Your task to perform on an android device: change the clock display to analog Image 0: 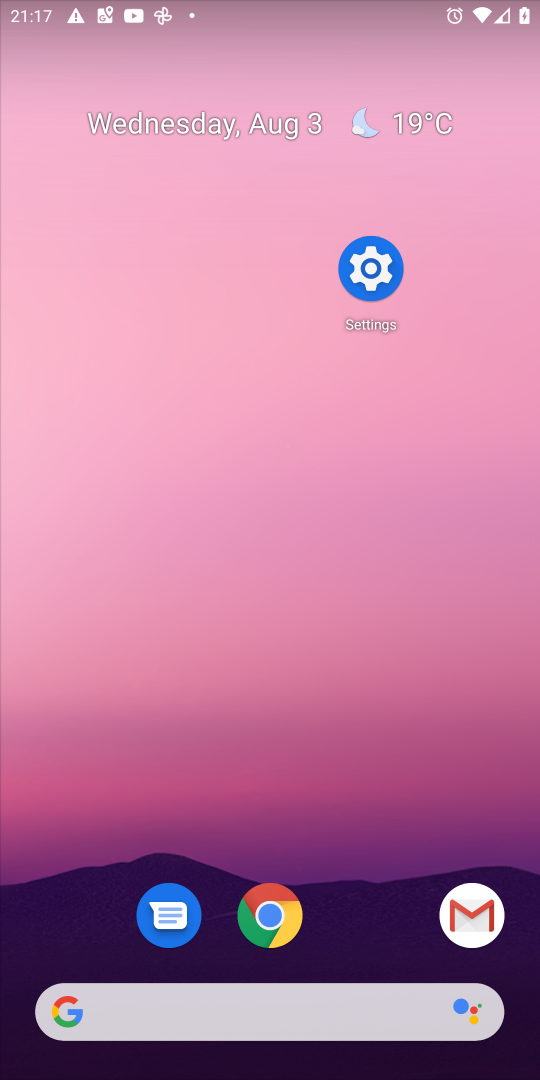
Step 0: press home button
Your task to perform on an android device: change the clock display to analog Image 1: 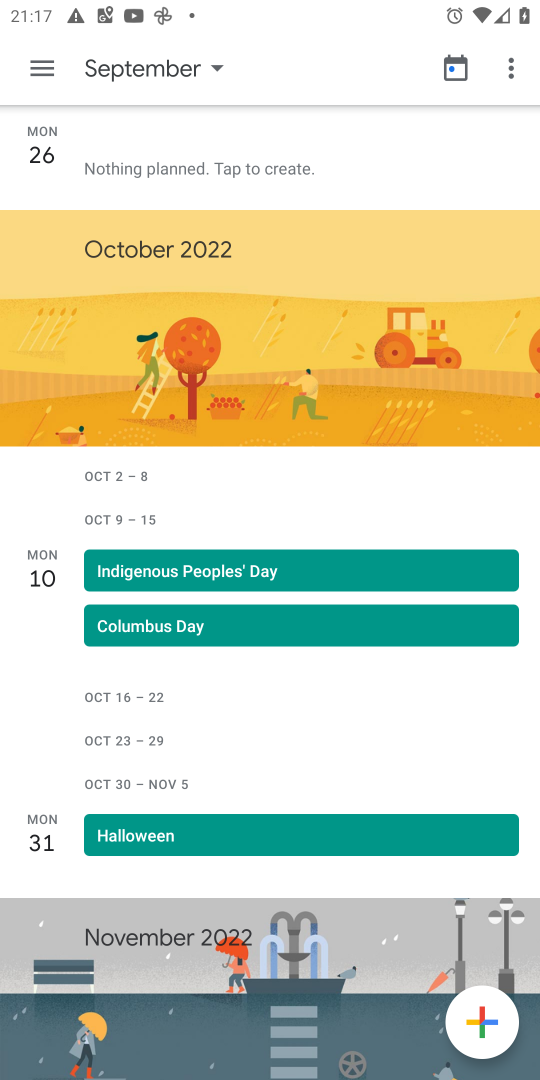
Step 1: drag from (409, 965) to (234, 245)
Your task to perform on an android device: change the clock display to analog Image 2: 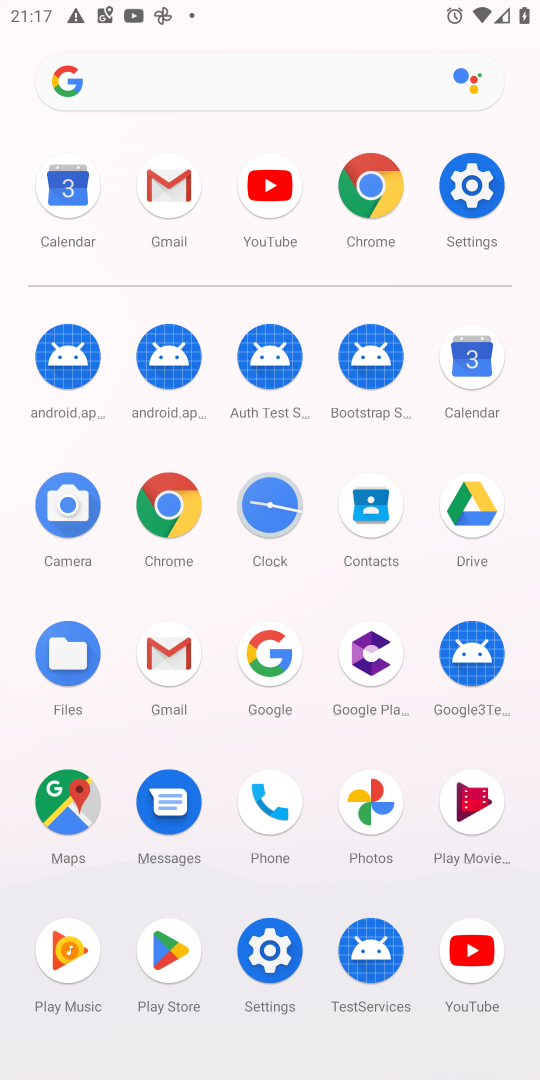
Step 2: click (163, 193)
Your task to perform on an android device: change the clock display to analog Image 3: 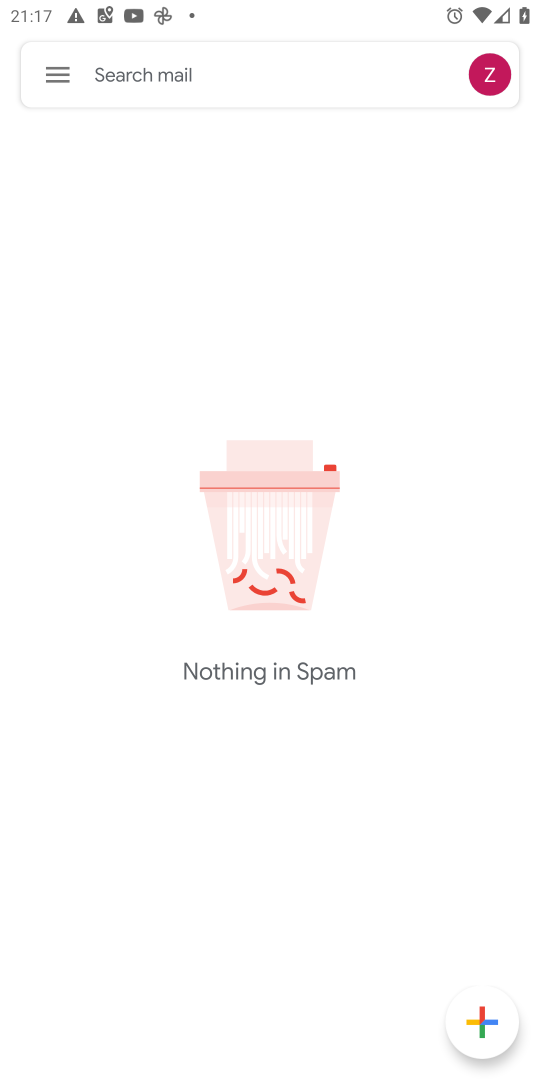
Step 3: click (57, 75)
Your task to perform on an android device: change the clock display to analog Image 4: 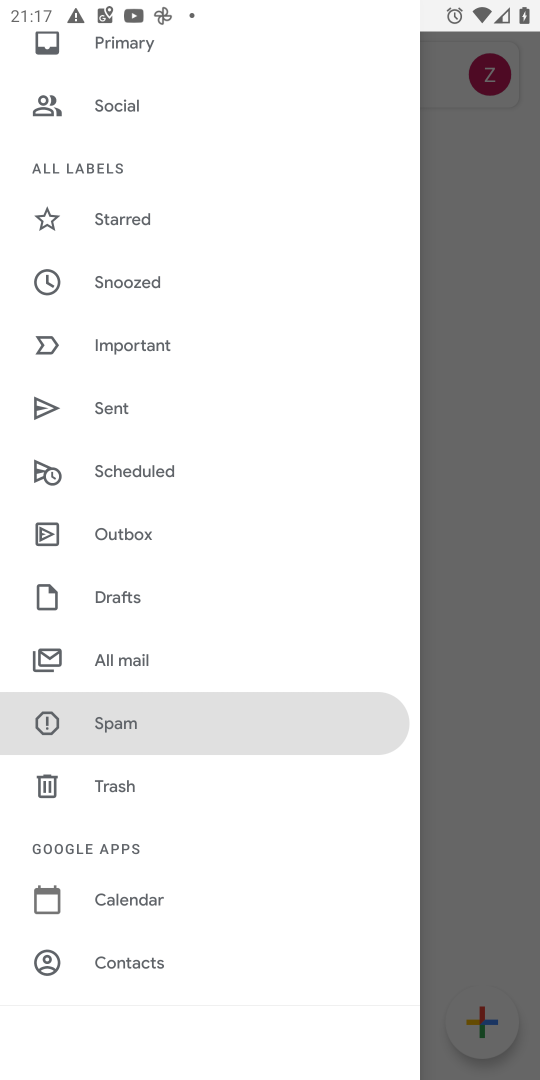
Step 4: press home button
Your task to perform on an android device: change the clock display to analog Image 5: 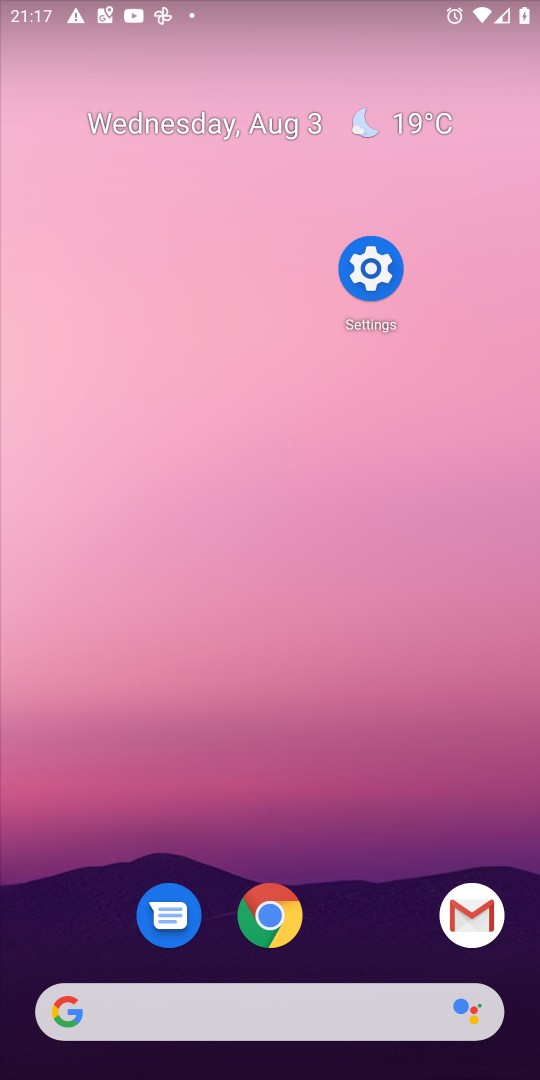
Step 5: drag from (335, 930) to (266, 234)
Your task to perform on an android device: change the clock display to analog Image 6: 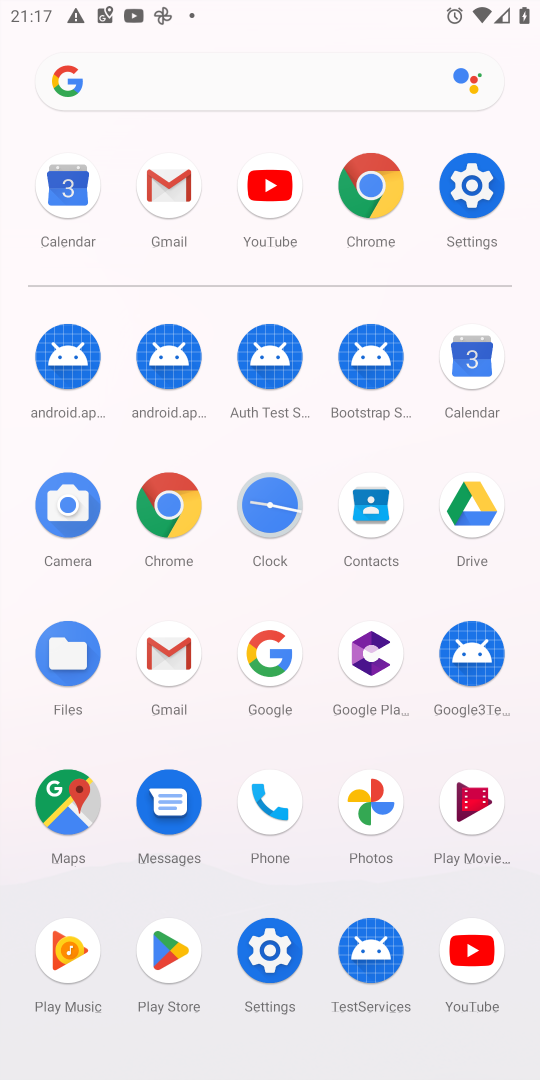
Step 6: click (256, 513)
Your task to perform on an android device: change the clock display to analog Image 7: 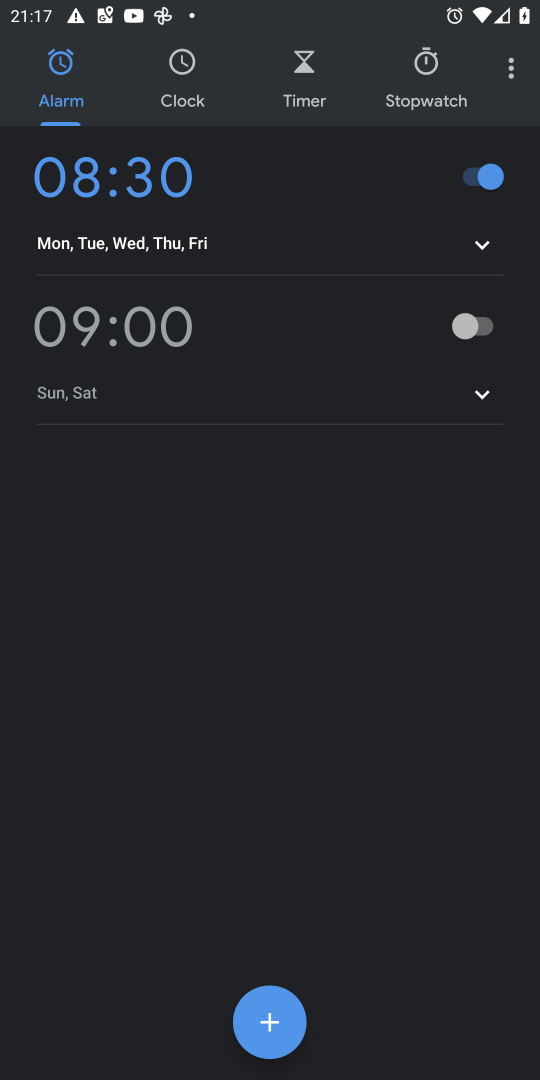
Step 7: click (512, 67)
Your task to perform on an android device: change the clock display to analog Image 8: 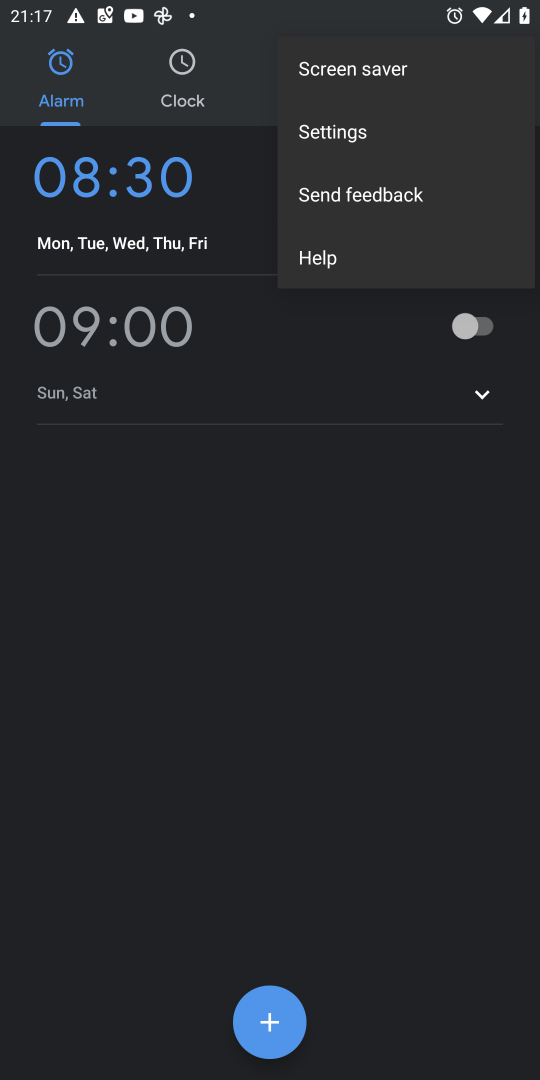
Step 8: click (398, 152)
Your task to perform on an android device: change the clock display to analog Image 9: 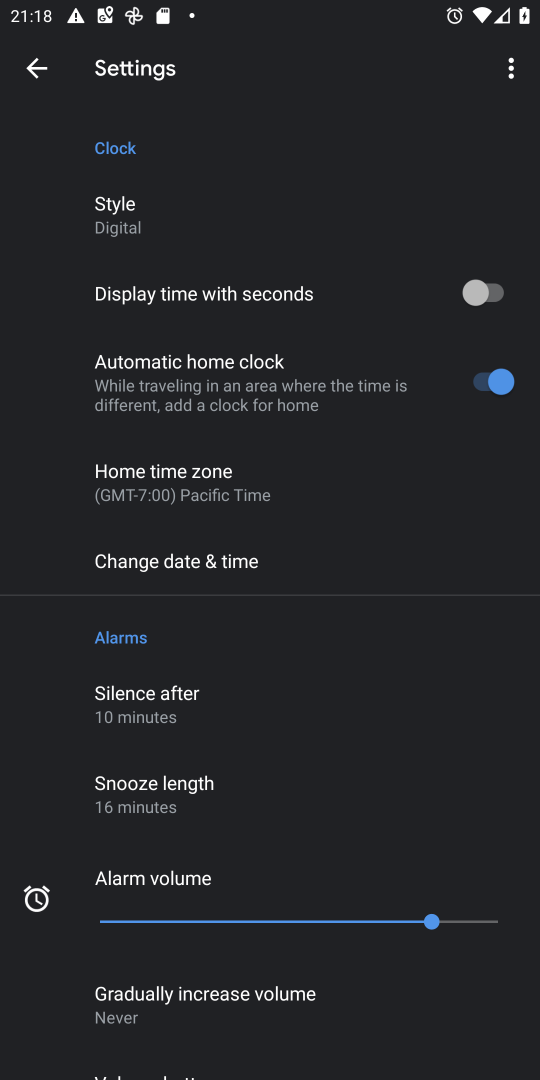
Step 9: click (185, 230)
Your task to perform on an android device: change the clock display to analog Image 10: 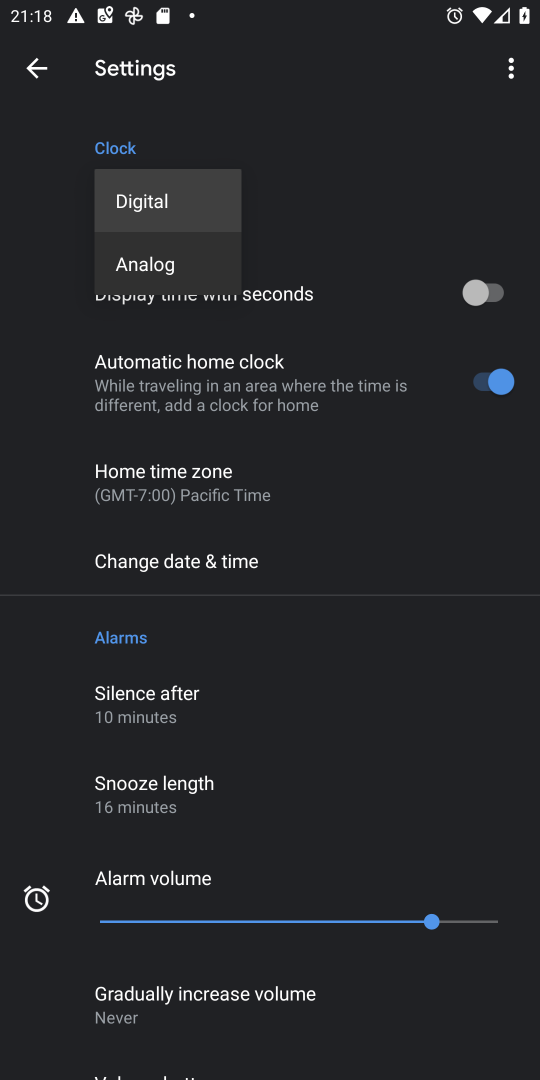
Step 10: click (161, 263)
Your task to perform on an android device: change the clock display to analog Image 11: 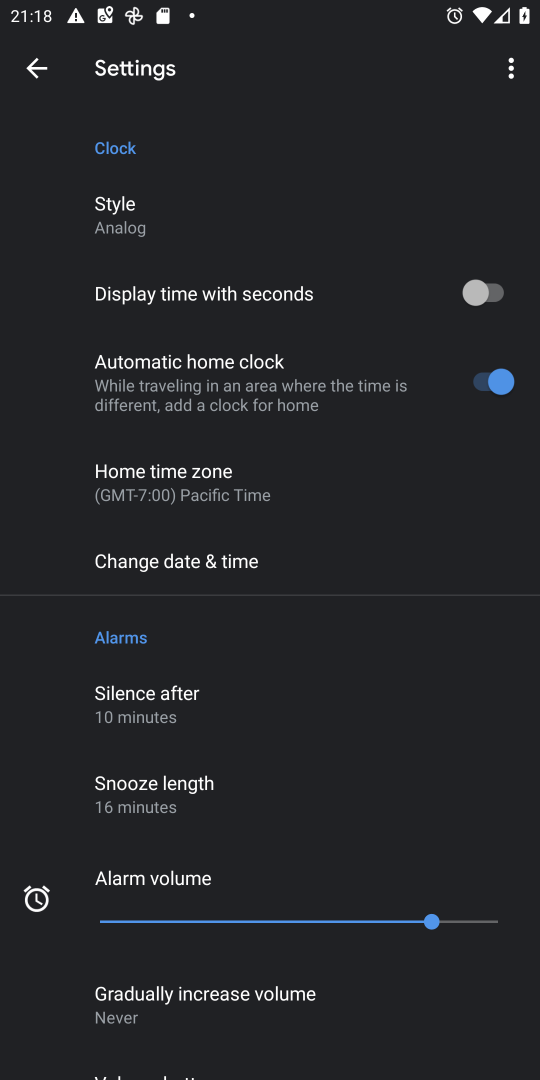
Step 11: task complete